Your task to perform on an android device: Show the shopping cart on costco.com. Search for "jbl charge 4" on costco.com, select the first entry, and add it to the cart. Image 0: 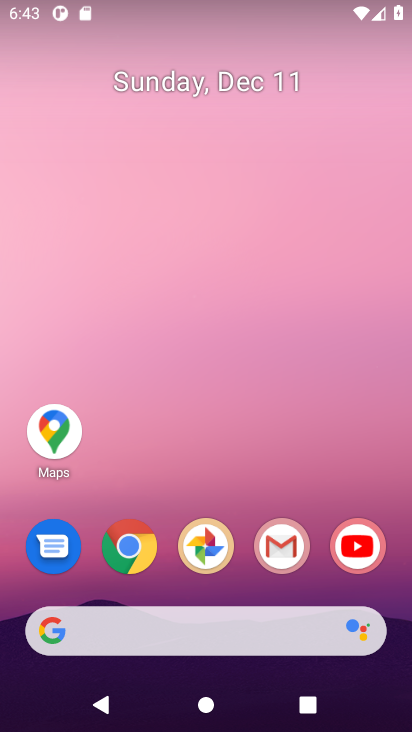
Step 0: drag from (206, 582) to (185, 52)
Your task to perform on an android device: Show the shopping cart on costco.com. Search for "jbl charge 4" on costco.com, select the first entry, and add it to the cart. Image 1: 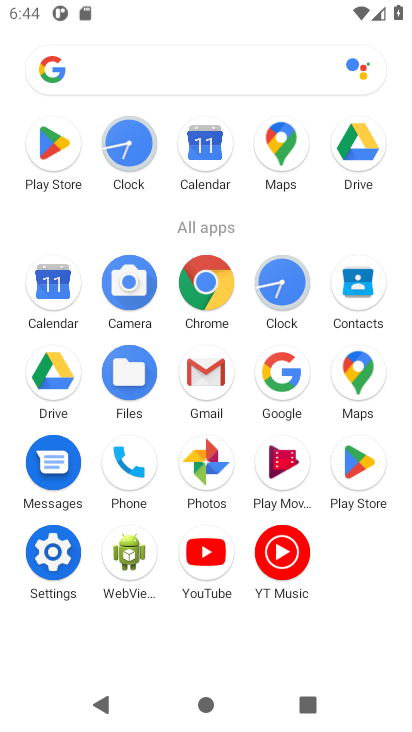
Step 1: click (272, 372)
Your task to perform on an android device: Show the shopping cart on costco.com. Search for "jbl charge 4" on costco.com, select the first entry, and add it to the cart. Image 2: 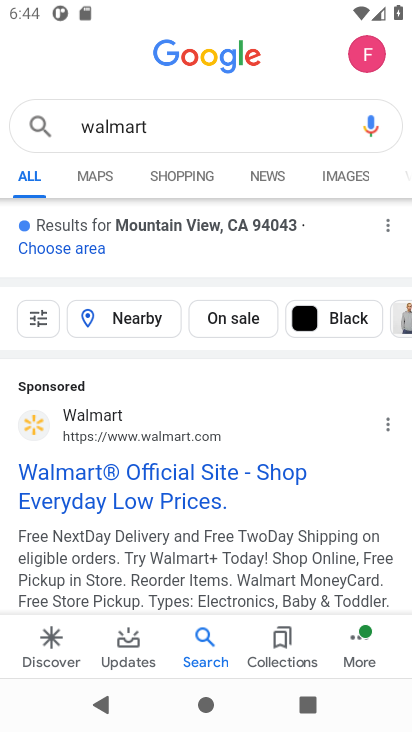
Step 2: click (130, 127)
Your task to perform on an android device: Show the shopping cart on costco.com. Search for "jbl charge 4" on costco.com, select the first entry, and add it to the cart. Image 3: 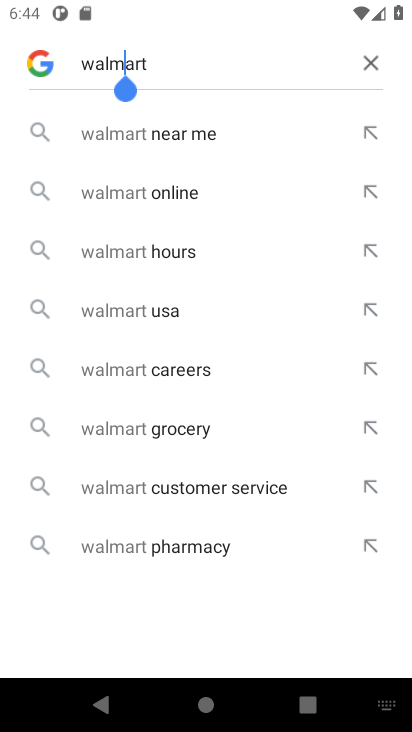
Step 3: click (367, 68)
Your task to perform on an android device: Show the shopping cart on costco.com. Search for "jbl charge 4" on costco.com, select the first entry, and add it to the cart. Image 4: 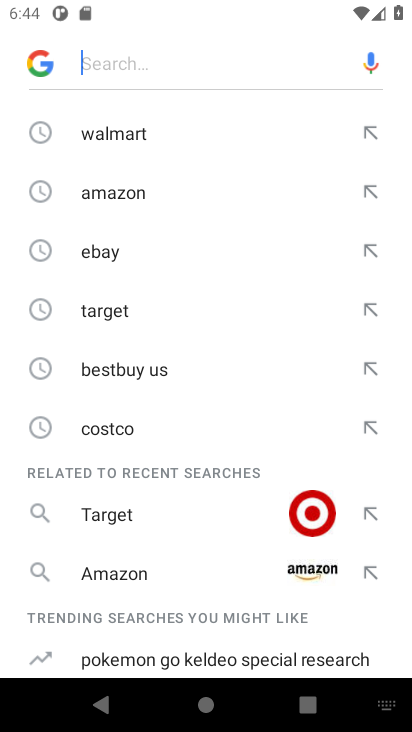
Step 4: click (96, 429)
Your task to perform on an android device: Show the shopping cart on costco.com. Search for "jbl charge 4" on costco.com, select the first entry, and add it to the cart. Image 5: 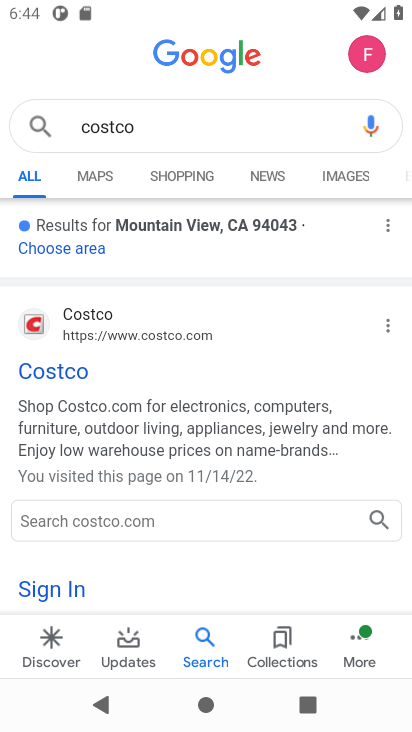
Step 5: click (40, 371)
Your task to perform on an android device: Show the shopping cart on costco.com. Search for "jbl charge 4" on costco.com, select the first entry, and add it to the cart. Image 6: 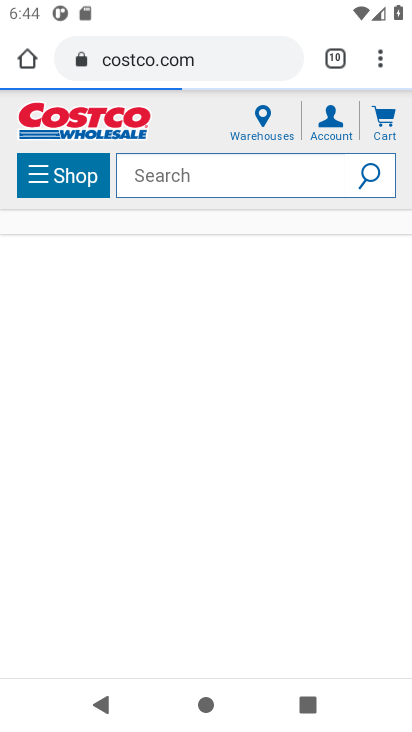
Step 6: click (381, 118)
Your task to perform on an android device: Show the shopping cart on costco.com. Search for "jbl charge 4" on costco.com, select the first entry, and add it to the cart. Image 7: 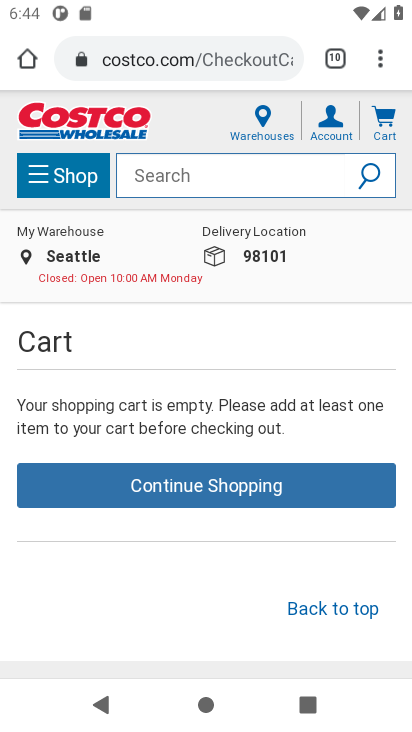
Step 7: click (172, 174)
Your task to perform on an android device: Show the shopping cart on costco.com. Search for "jbl charge 4" on costco.com, select the first entry, and add it to the cart. Image 8: 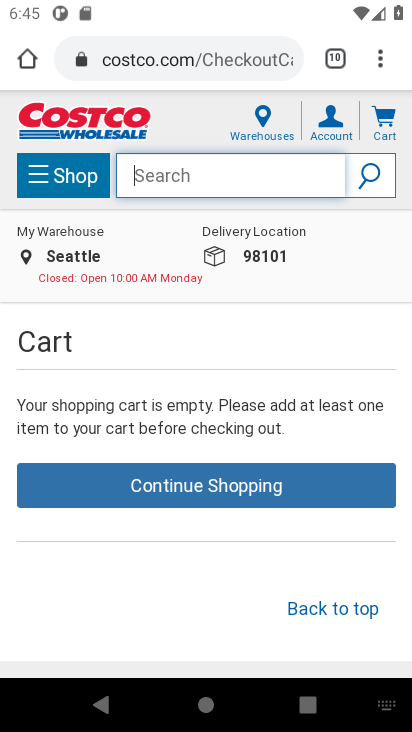
Step 8: type "jbl charge 4"
Your task to perform on an android device: Show the shopping cart on costco.com. Search for "jbl charge 4" on costco.com, select the first entry, and add it to the cart. Image 9: 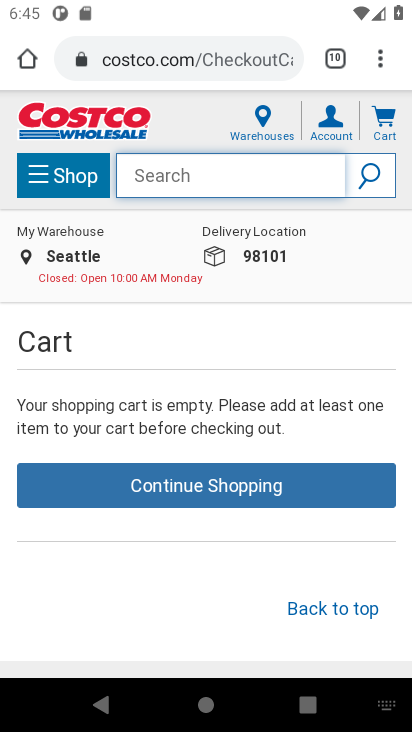
Step 9: click (379, 173)
Your task to perform on an android device: Show the shopping cart on costco.com. Search for "jbl charge 4" on costco.com, select the first entry, and add it to the cart. Image 10: 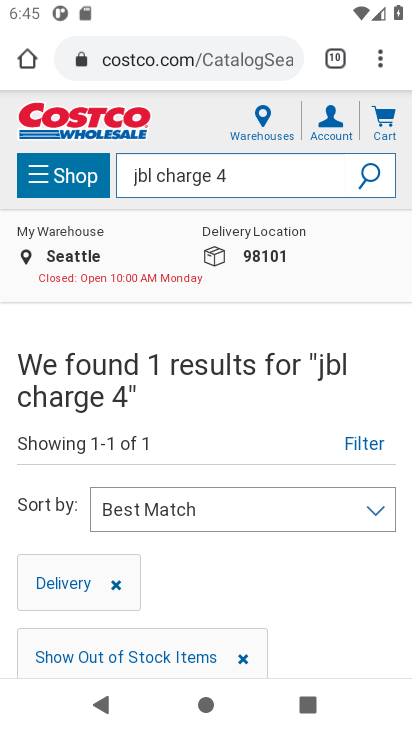
Step 10: drag from (210, 556) to (111, 227)
Your task to perform on an android device: Show the shopping cart on costco.com. Search for "jbl charge 4" on costco.com, select the first entry, and add it to the cart. Image 11: 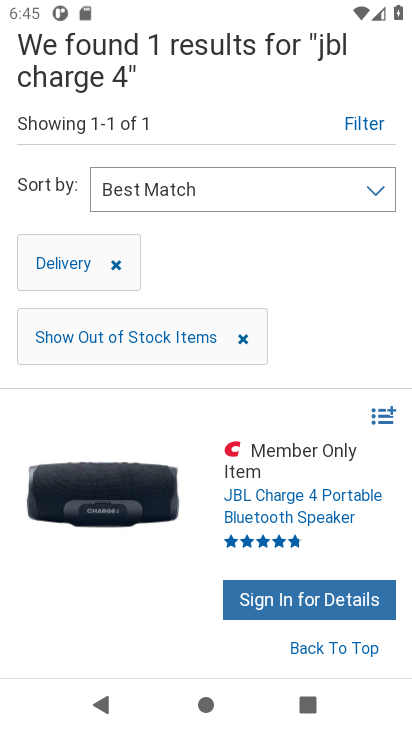
Step 11: click (320, 605)
Your task to perform on an android device: Show the shopping cart on costco.com. Search for "jbl charge 4" on costco.com, select the first entry, and add it to the cart. Image 12: 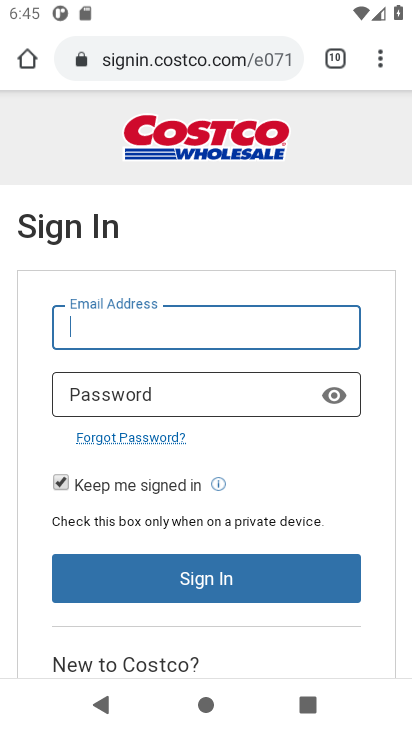
Step 12: task complete